Your task to perform on an android device: turn off notifications settings in the gmail app Image 0: 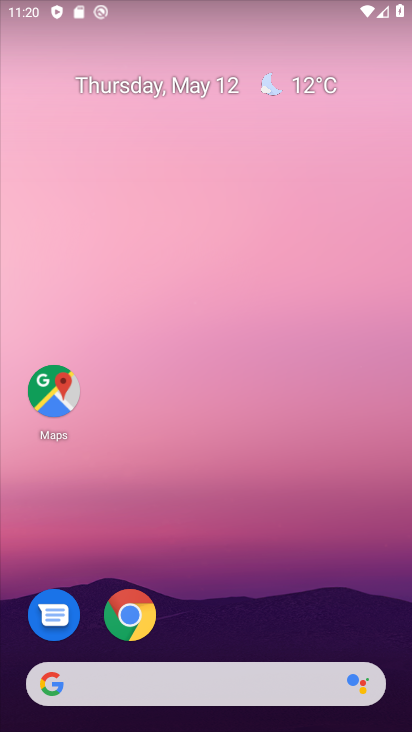
Step 0: drag from (301, 564) to (262, 11)
Your task to perform on an android device: turn off notifications settings in the gmail app Image 1: 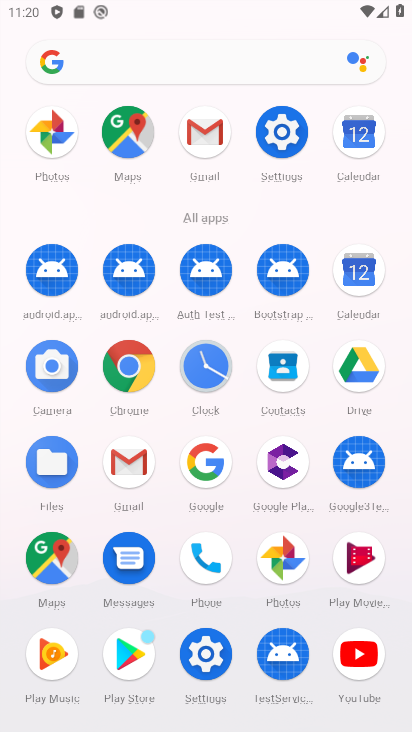
Step 1: click (211, 139)
Your task to perform on an android device: turn off notifications settings in the gmail app Image 2: 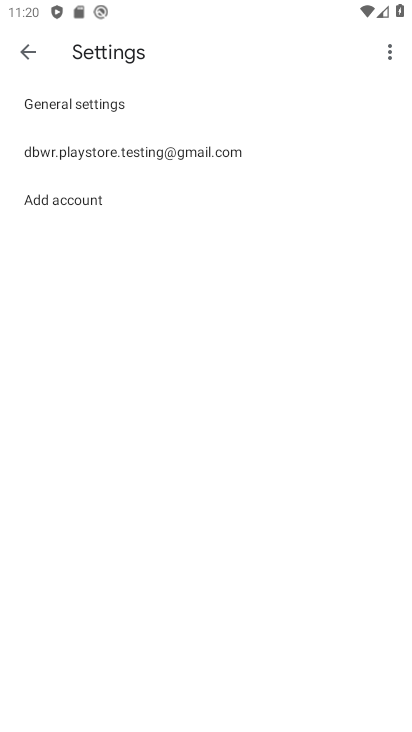
Step 2: click (120, 98)
Your task to perform on an android device: turn off notifications settings in the gmail app Image 3: 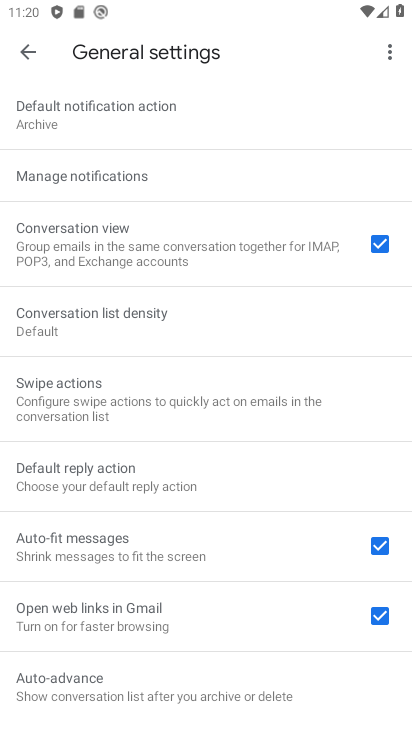
Step 3: click (252, 179)
Your task to perform on an android device: turn off notifications settings in the gmail app Image 4: 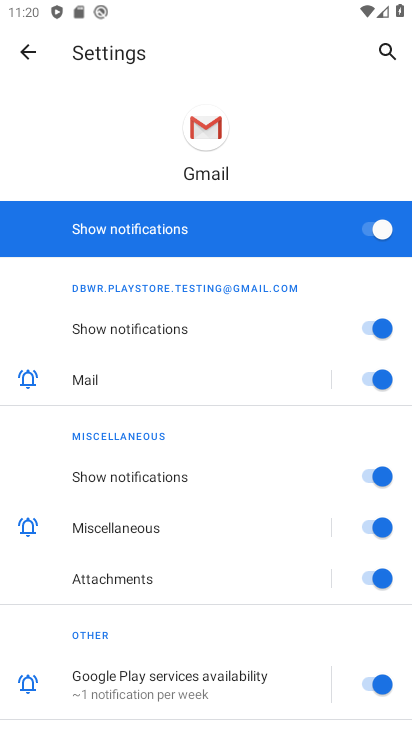
Step 4: click (359, 222)
Your task to perform on an android device: turn off notifications settings in the gmail app Image 5: 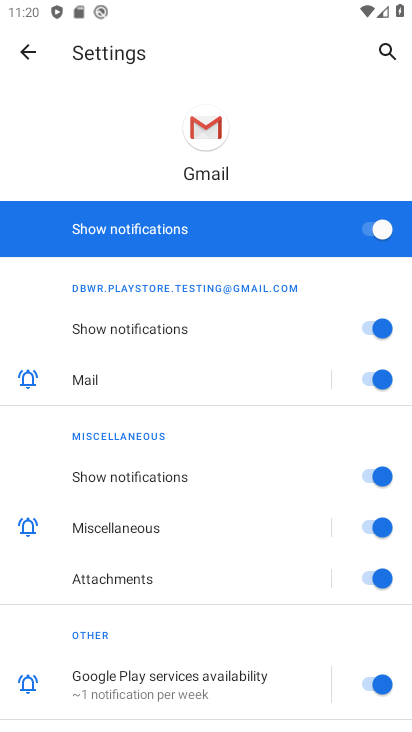
Step 5: click (365, 227)
Your task to perform on an android device: turn off notifications settings in the gmail app Image 6: 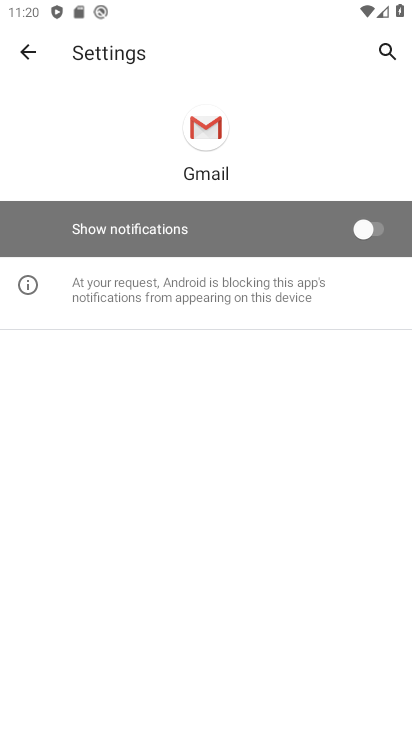
Step 6: task complete